Your task to perform on an android device: clear history in the chrome app Image 0: 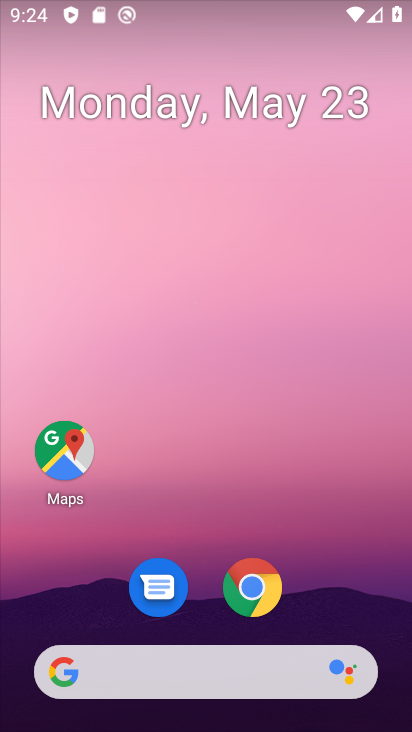
Step 0: click (257, 596)
Your task to perform on an android device: clear history in the chrome app Image 1: 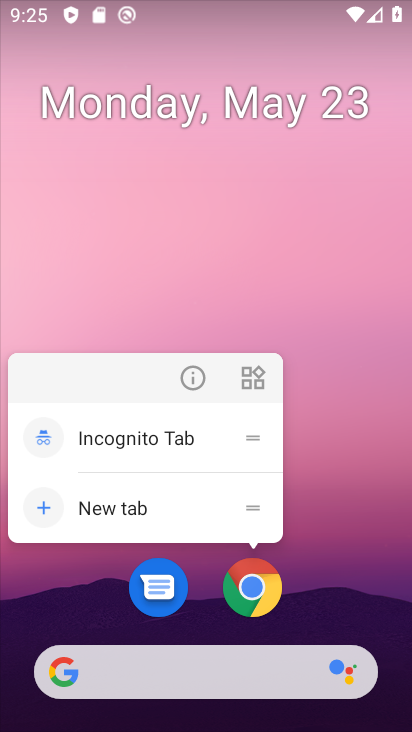
Step 1: click (220, 553)
Your task to perform on an android device: clear history in the chrome app Image 2: 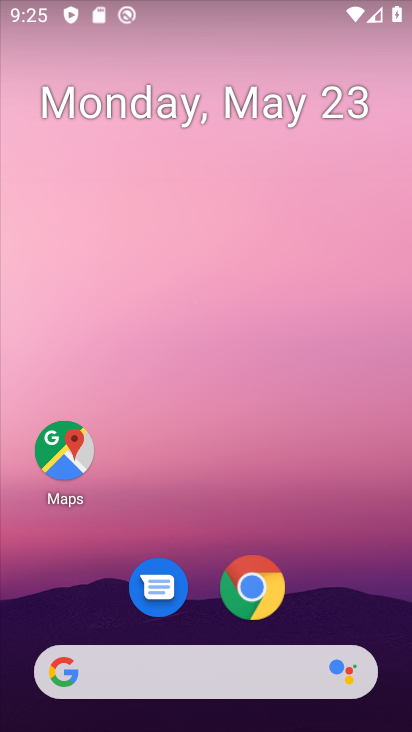
Step 2: click (246, 580)
Your task to perform on an android device: clear history in the chrome app Image 3: 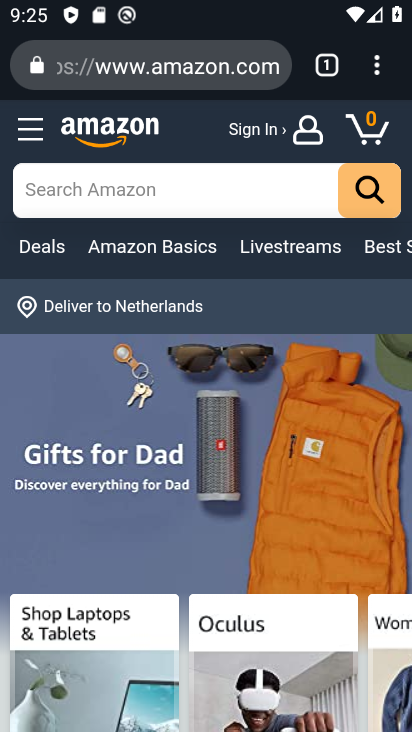
Step 3: drag from (372, 72) to (140, 372)
Your task to perform on an android device: clear history in the chrome app Image 4: 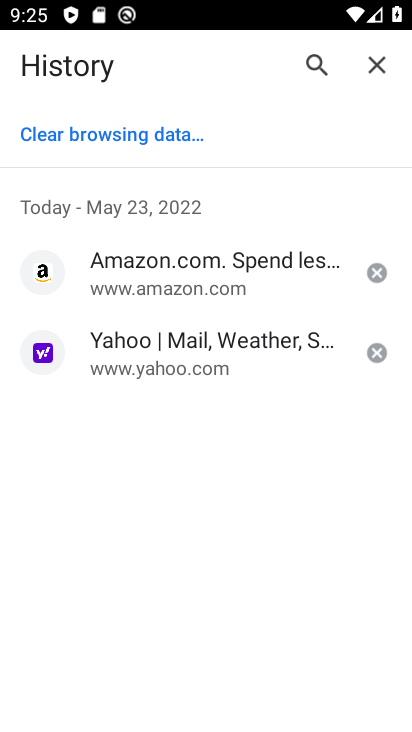
Step 4: click (63, 148)
Your task to perform on an android device: clear history in the chrome app Image 5: 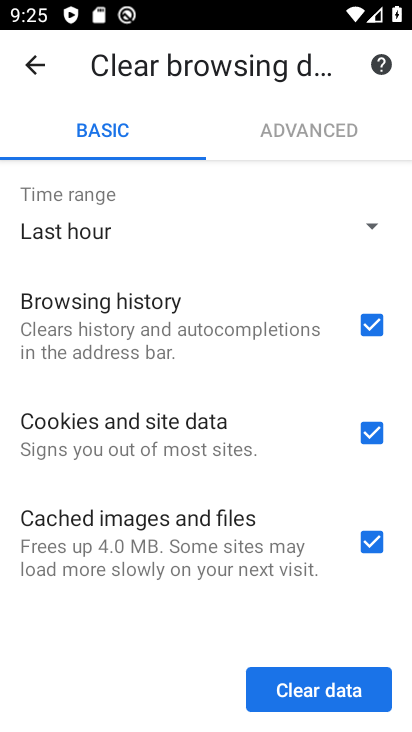
Step 5: click (300, 681)
Your task to perform on an android device: clear history in the chrome app Image 6: 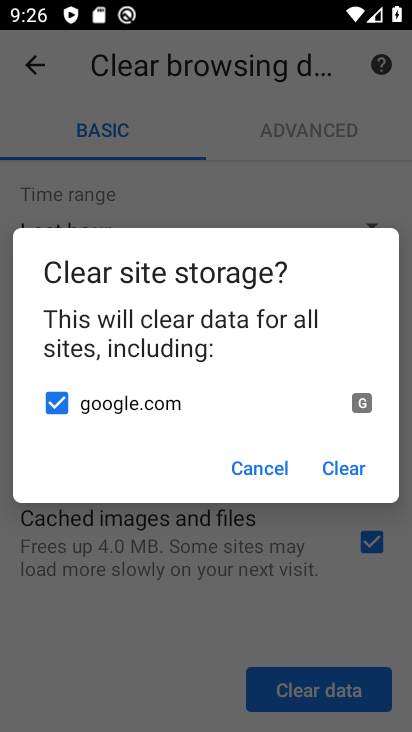
Step 6: click (354, 474)
Your task to perform on an android device: clear history in the chrome app Image 7: 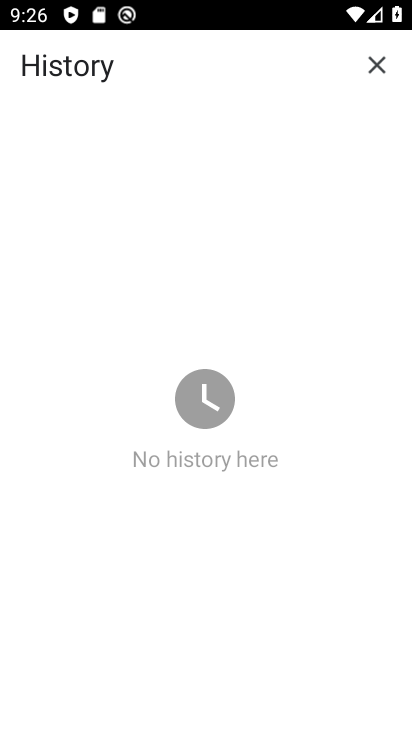
Step 7: task complete